Your task to perform on an android device: Open calendar and show me the third week of next month Image 0: 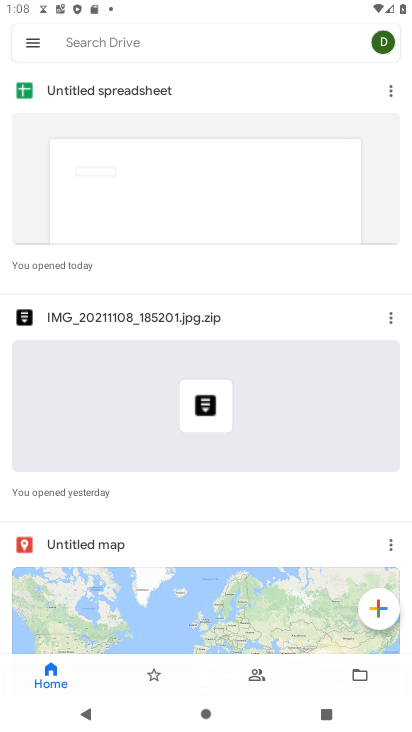
Step 0: press home button
Your task to perform on an android device: Open calendar and show me the third week of next month Image 1: 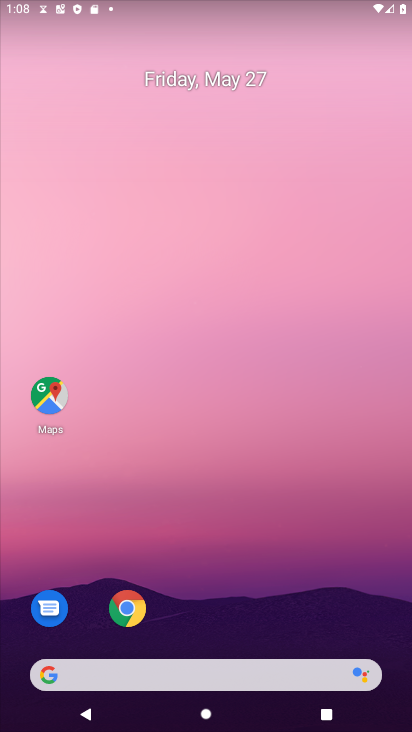
Step 1: drag from (190, 653) to (240, 8)
Your task to perform on an android device: Open calendar and show me the third week of next month Image 2: 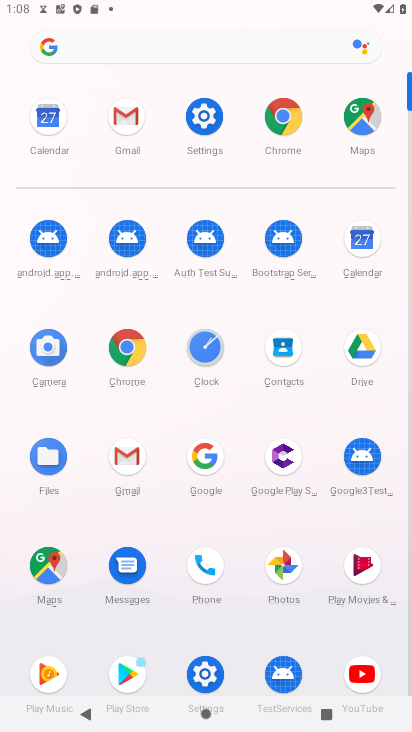
Step 2: click (51, 119)
Your task to perform on an android device: Open calendar and show me the third week of next month Image 3: 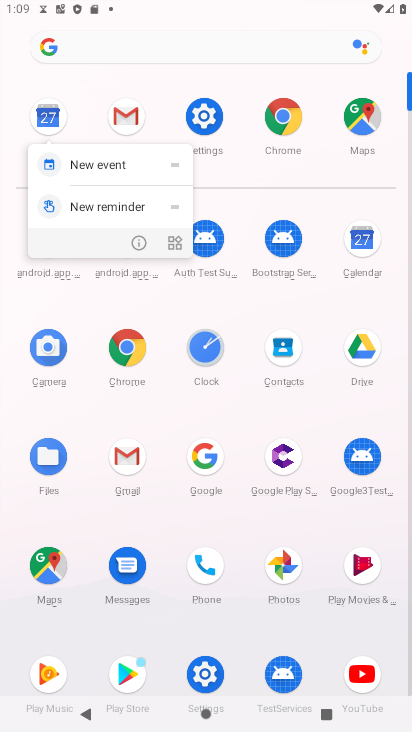
Step 3: click (356, 240)
Your task to perform on an android device: Open calendar and show me the third week of next month Image 4: 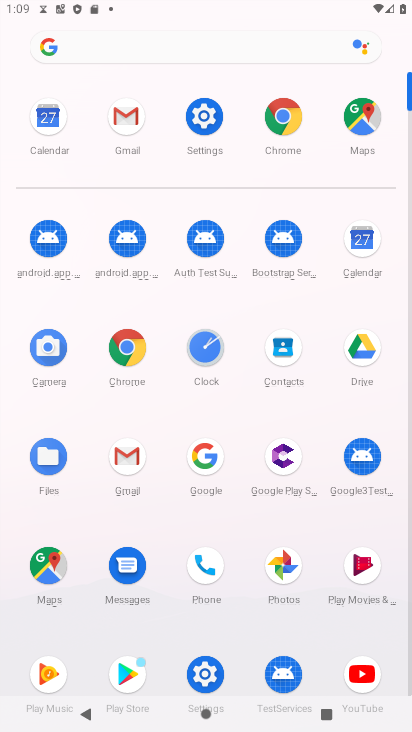
Step 4: click (356, 240)
Your task to perform on an android device: Open calendar and show me the third week of next month Image 5: 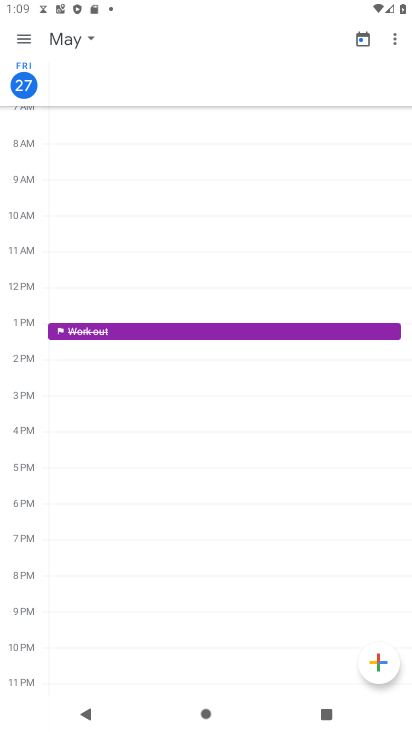
Step 5: click (89, 43)
Your task to perform on an android device: Open calendar and show me the third week of next month Image 6: 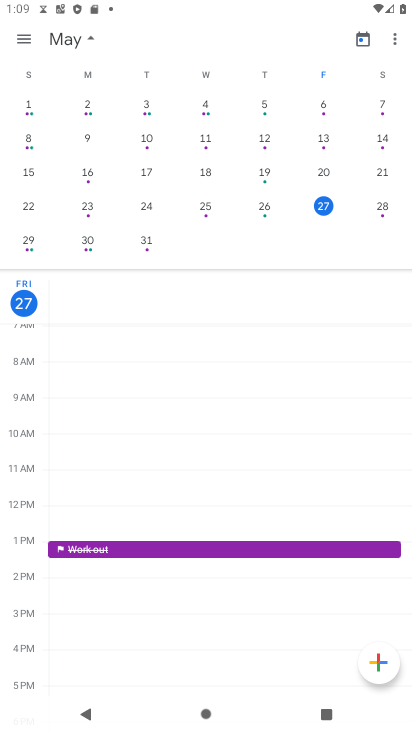
Step 6: drag from (327, 158) to (30, 108)
Your task to perform on an android device: Open calendar and show me the third week of next month Image 7: 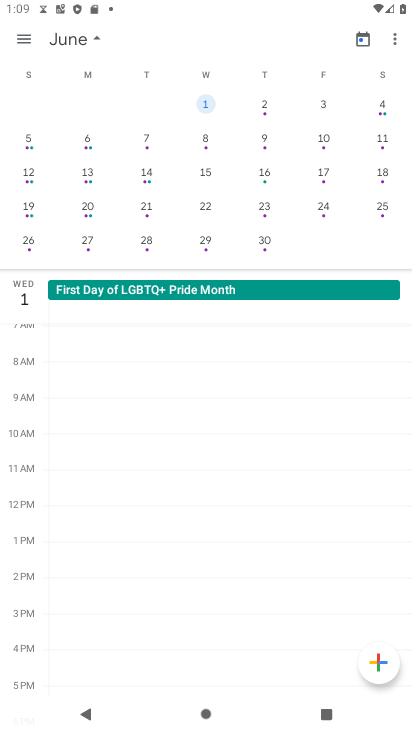
Step 7: click (91, 171)
Your task to perform on an android device: Open calendar and show me the third week of next month Image 8: 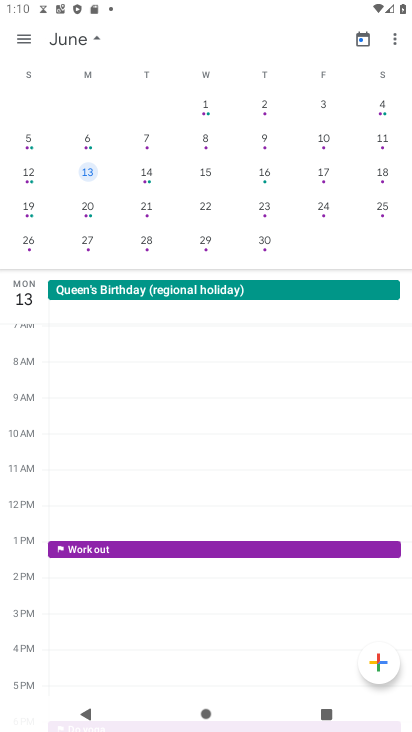
Step 8: task complete